Your task to perform on an android device: Do I have any events today? Image 0: 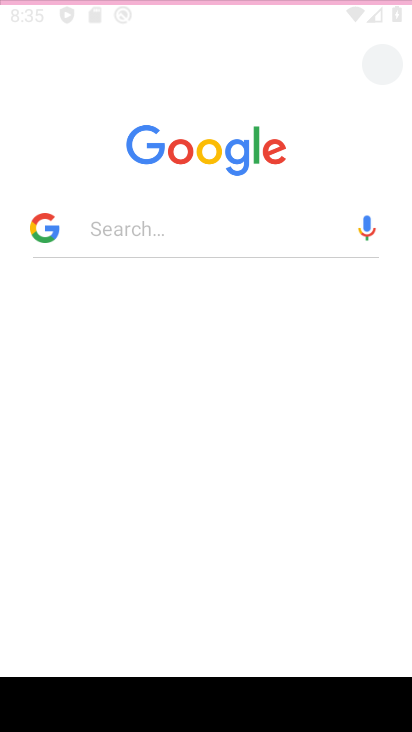
Step 0: press home button
Your task to perform on an android device: Do I have any events today? Image 1: 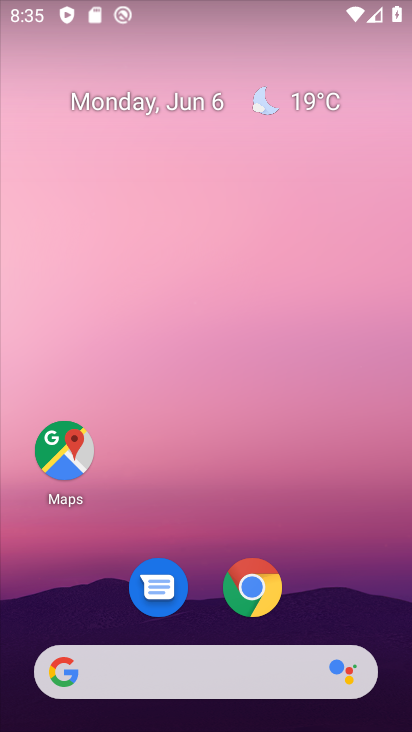
Step 1: drag from (210, 615) to (275, 47)
Your task to perform on an android device: Do I have any events today? Image 2: 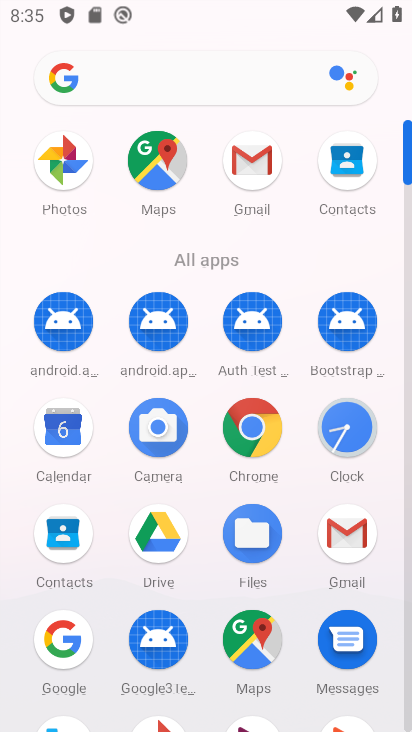
Step 2: click (67, 445)
Your task to perform on an android device: Do I have any events today? Image 3: 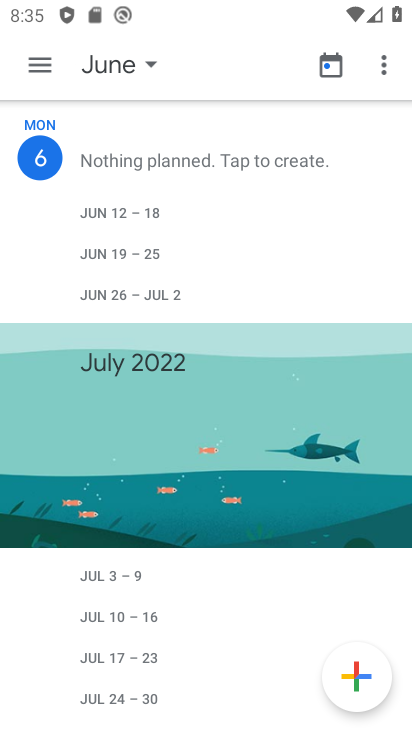
Step 3: click (42, 62)
Your task to perform on an android device: Do I have any events today? Image 4: 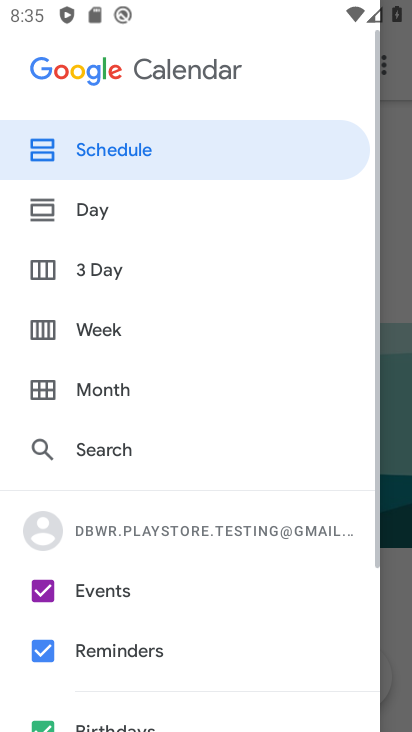
Step 4: click (98, 658)
Your task to perform on an android device: Do I have any events today? Image 5: 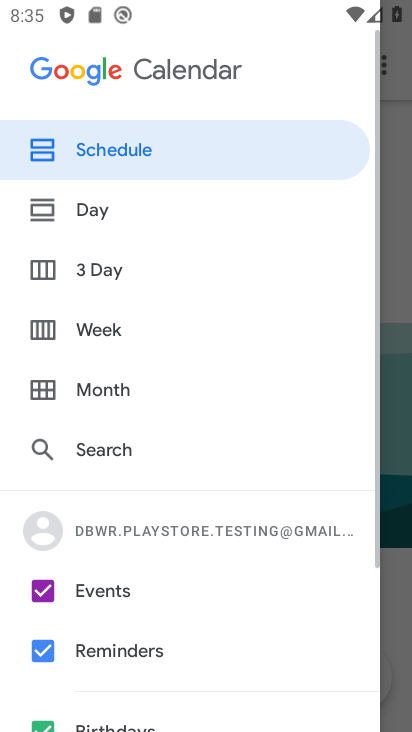
Step 5: drag from (100, 659) to (148, 357)
Your task to perform on an android device: Do I have any events today? Image 6: 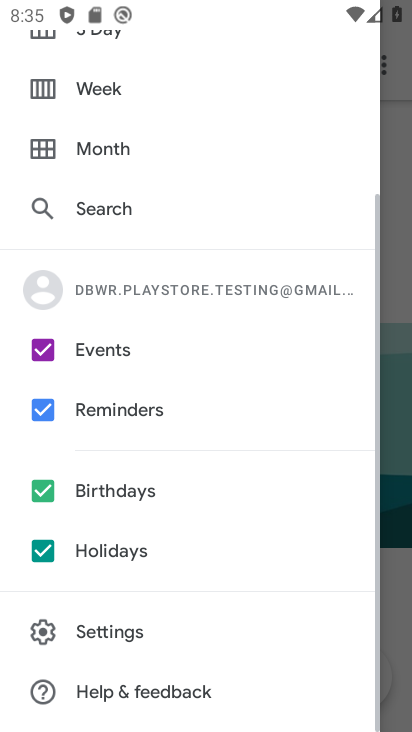
Step 6: click (95, 500)
Your task to perform on an android device: Do I have any events today? Image 7: 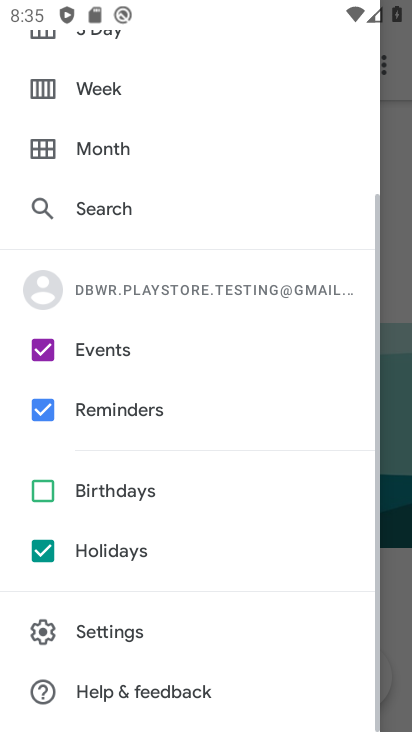
Step 7: click (89, 554)
Your task to perform on an android device: Do I have any events today? Image 8: 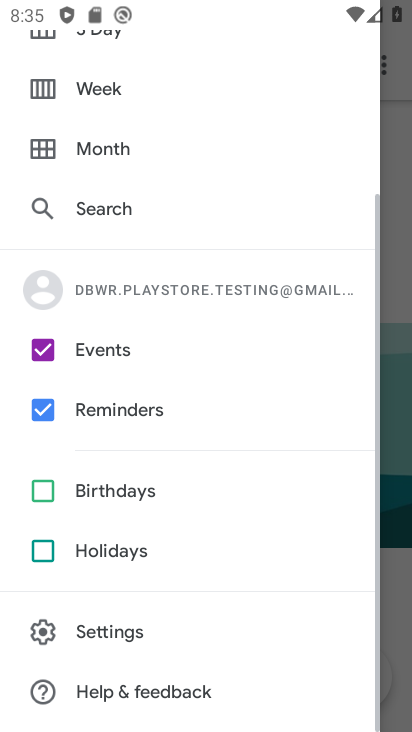
Step 8: click (84, 413)
Your task to perform on an android device: Do I have any events today? Image 9: 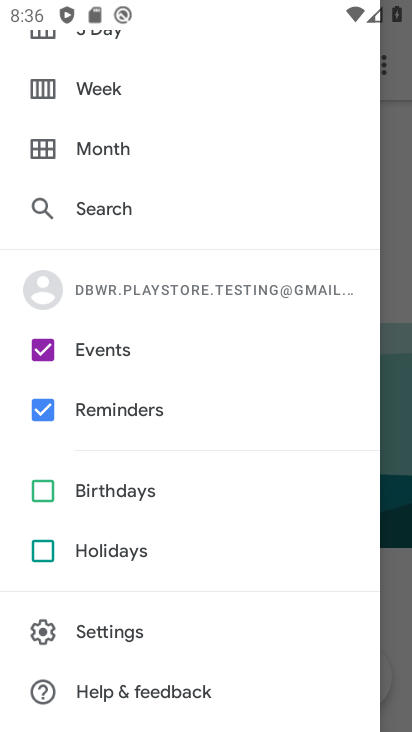
Step 9: click (79, 410)
Your task to perform on an android device: Do I have any events today? Image 10: 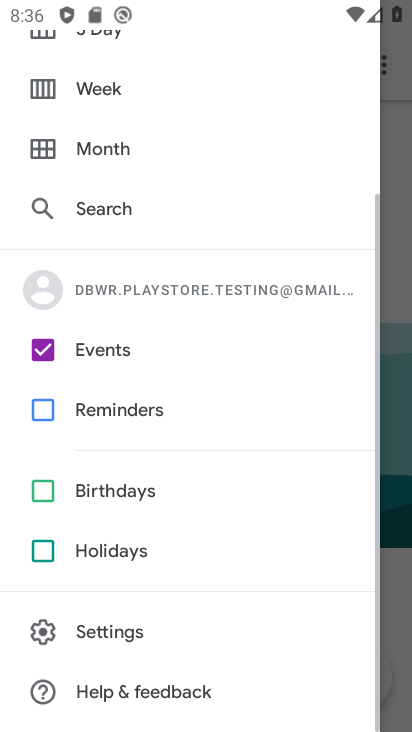
Step 10: drag from (235, 252) to (193, 552)
Your task to perform on an android device: Do I have any events today? Image 11: 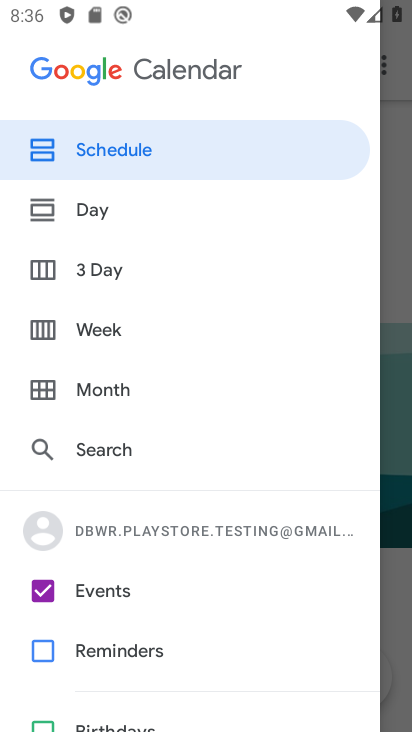
Step 11: click (102, 218)
Your task to perform on an android device: Do I have any events today? Image 12: 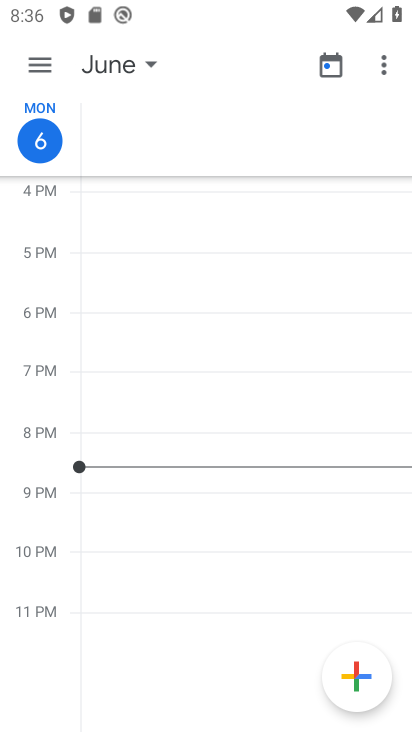
Step 12: task complete